Your task to perform on an android device: change text size in settings app Image 0: 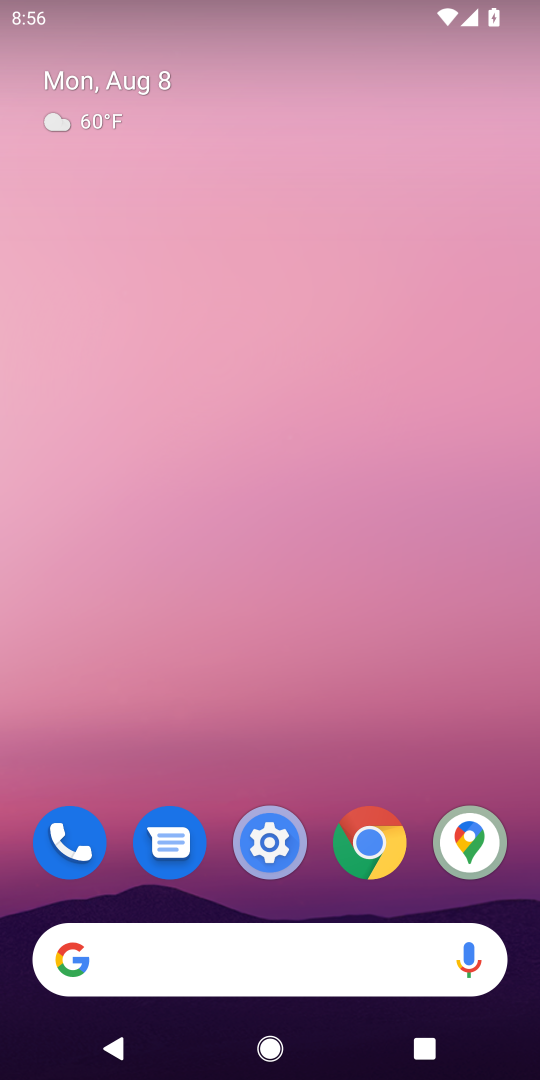
Step 0: click (263, 863)
Your task to perform on an android device: change text size in settings app Image 1: 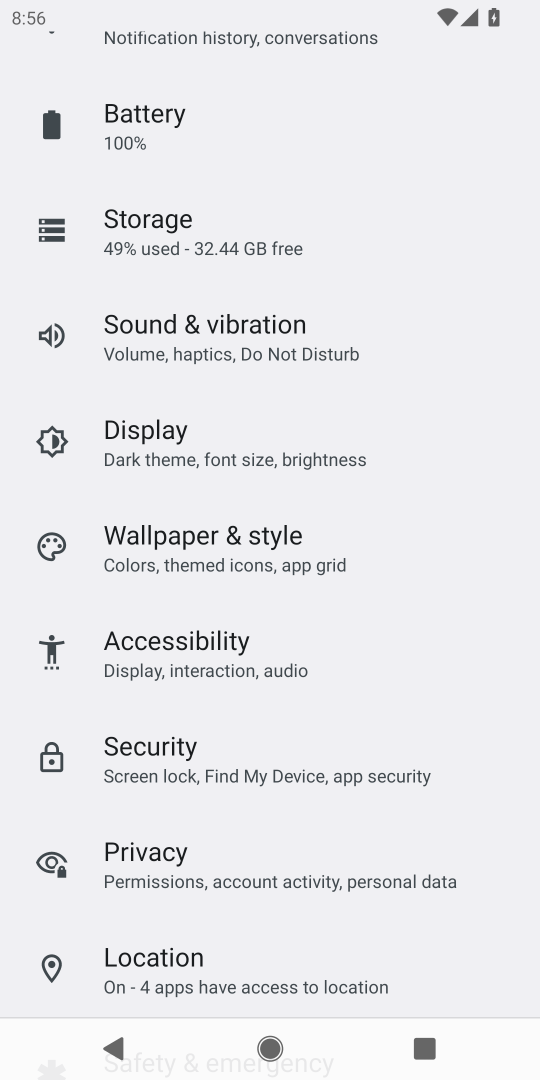
Step 1: click (234, 451)
Your task to perform on an android device: change text size in settings app Image 2: 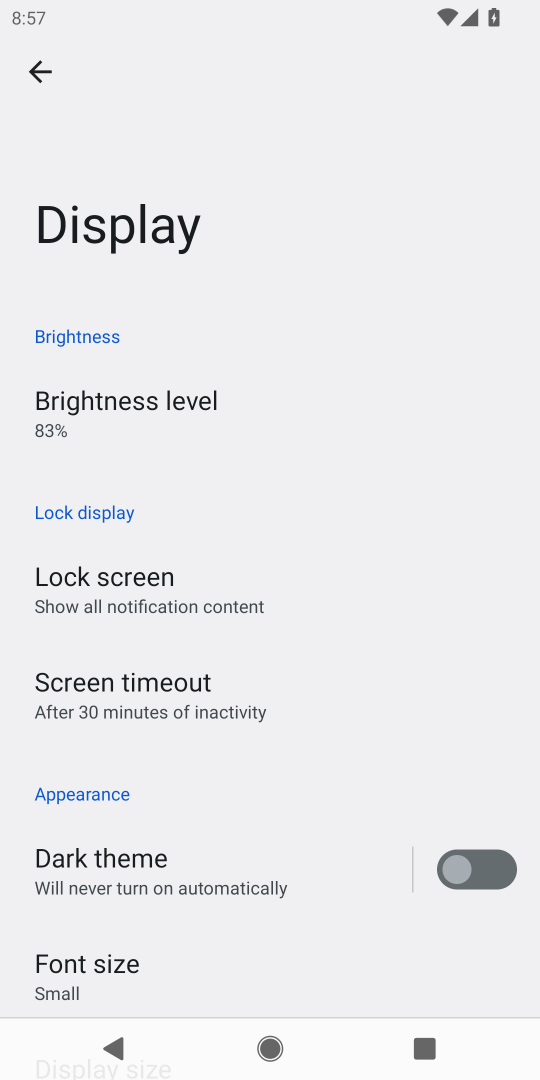
Step 2: click (136, 983)
Your task to perform on an android device: change text size in settings app Image 3: 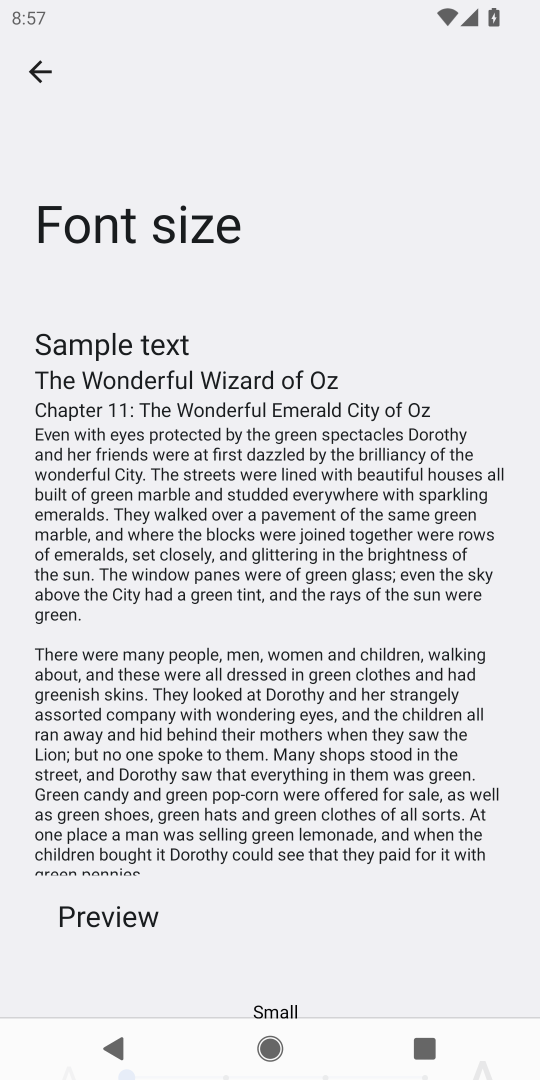
Step 3: drag from (311, 972) to (245, 574)
Your task to perform on an android device: change text size in settings app Image 4: 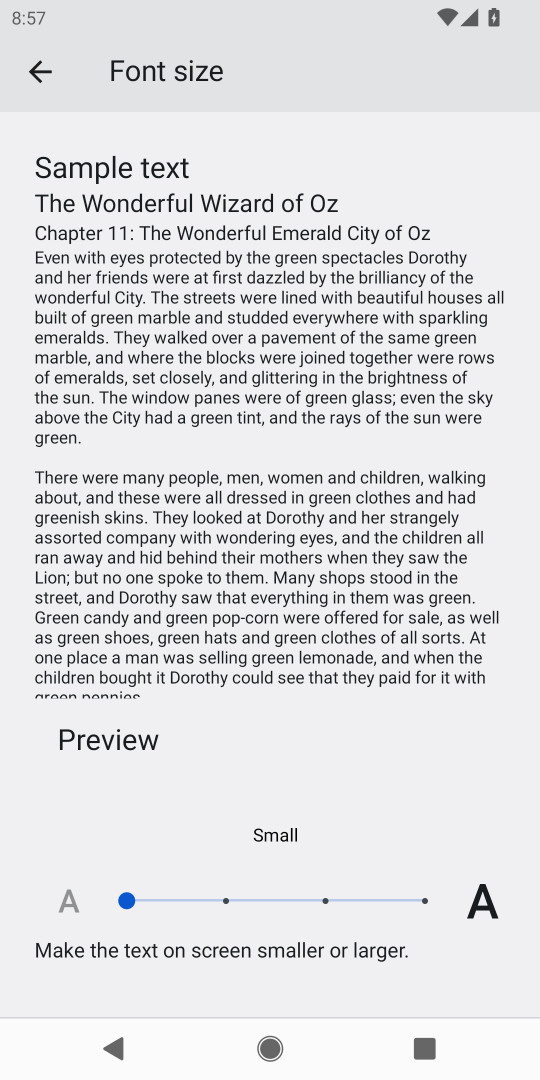
Step 4: click (318, 891)
Your task to perform on an android device: change text size in settings app Image 5: 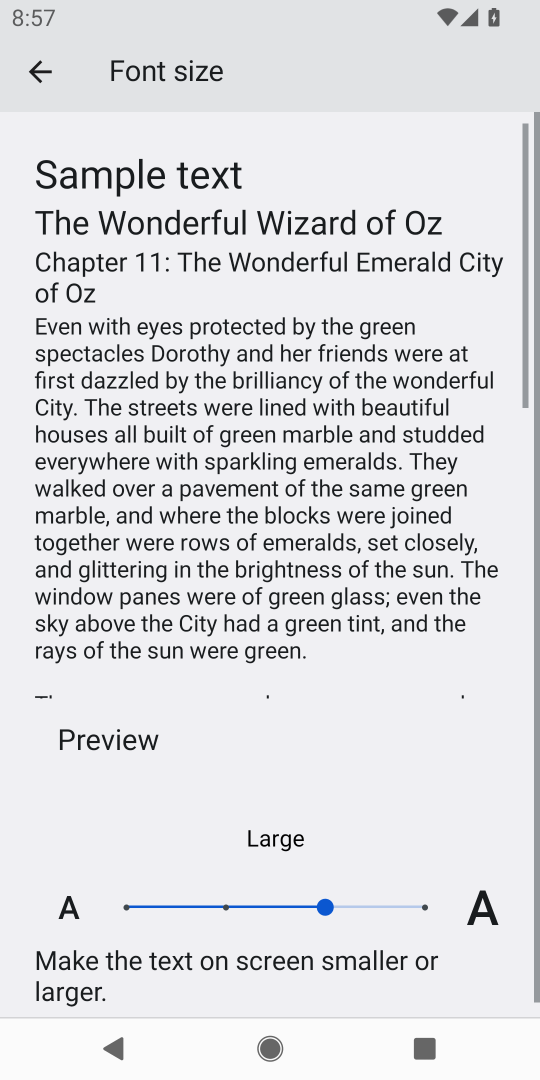
Step 5: task complete